Your task to perform on an android device: Show me popular games on the Play Store Image 0: 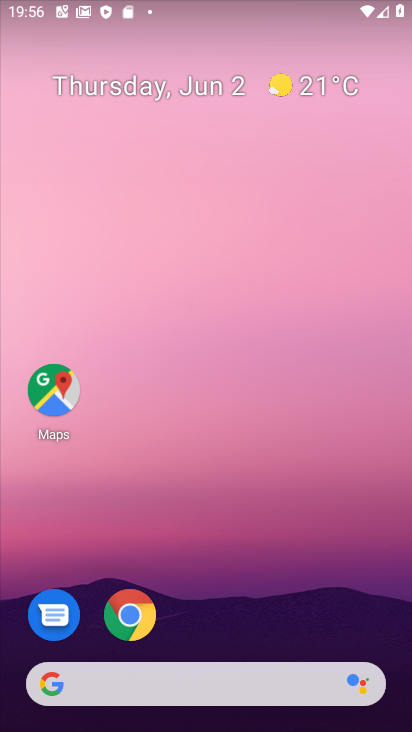
Step 0: drag from (280, 622) to (254, 127)
Your task to perform on an android device: Show me popular games on the Play Store Image 1: 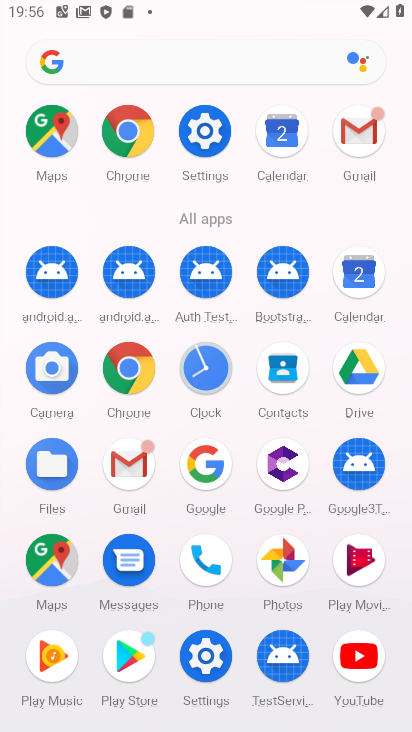
Step 1: click (126, 688)
Your task to perform on an android device: Show me popular games on the Play Store Image 2: 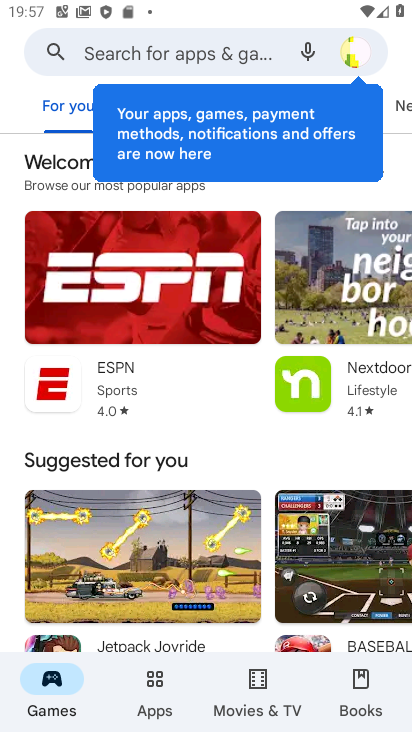
Step 2: click (82, 684)
Your task to perform on an android device: Show me popular games on the Play Store Image 3: 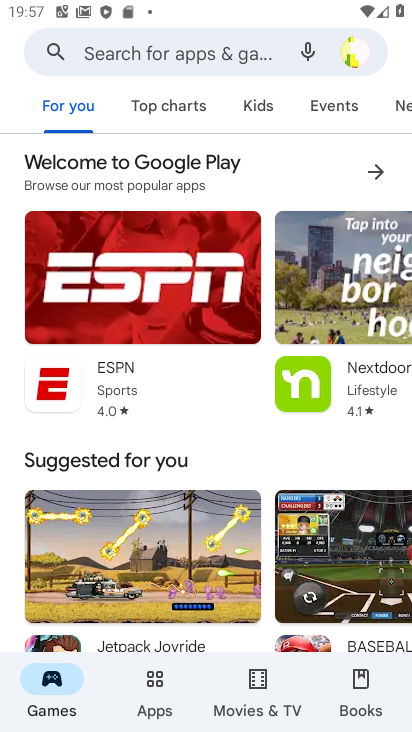
Step 3: click (82, 684)
Your task to perform on an android device: Show me popular games on the Play Store Image 4: 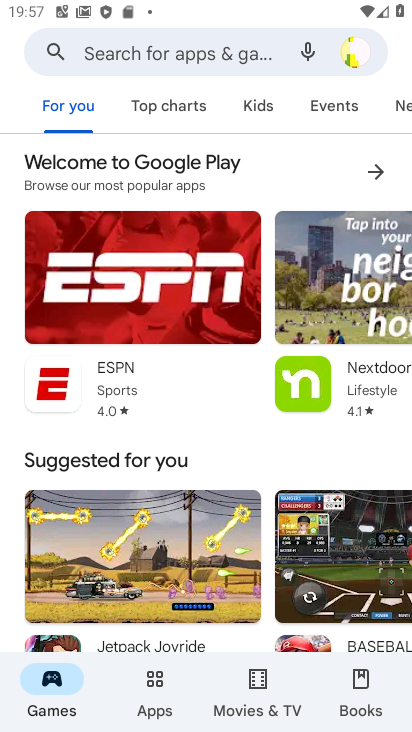
Step 4: click (151, 102)
Your task to perform on an android device: Show me popular games on the Play Store Image 5: 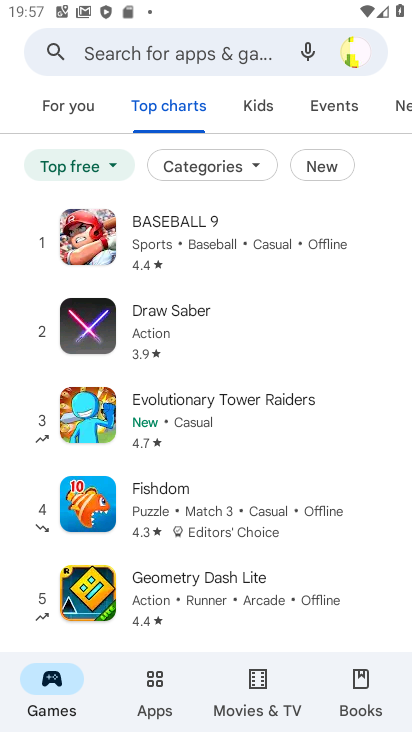
Step 5: task complete